Your task to perform on an android device: change the clock display to analog Image 0: 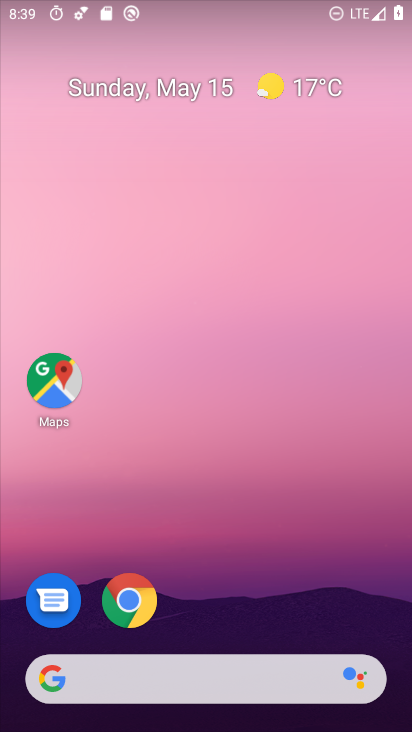
Step 0: drag from (258, 618) to (217, 198)
Your task to perform on an android device: change the clock display to analog Image 1: 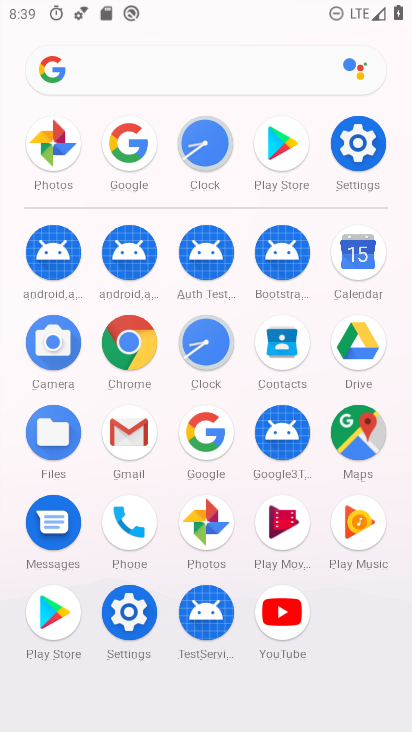
Step 1: click (210, 143)
Your task to perform on an android device: change the clock display to analog Image 2: 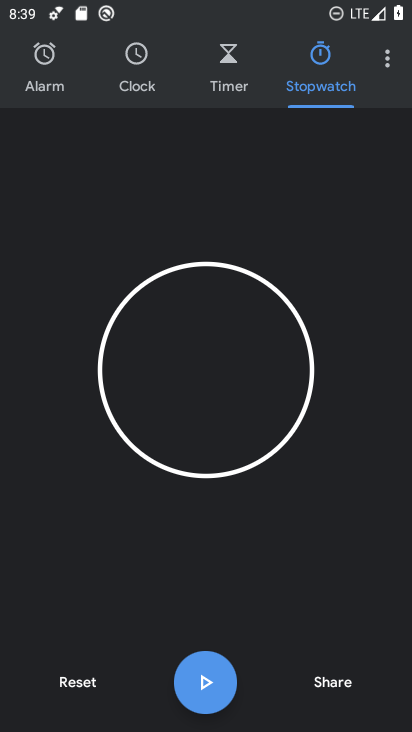
Step 2: click (389, 56)
Your task to perform on an android device: change the clock display to analog Image 3: 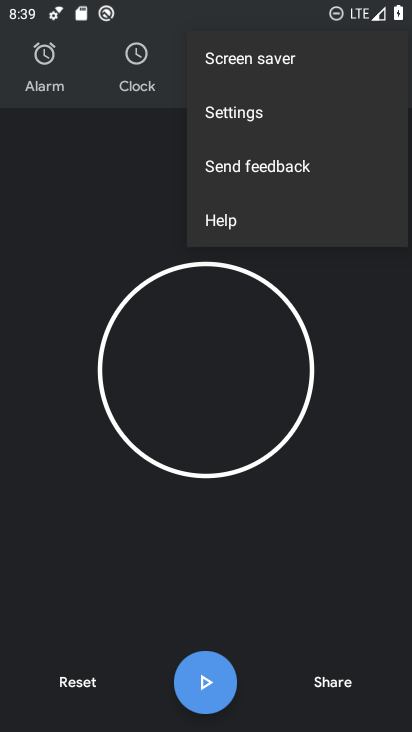
Step 3: click (247, 112)
Your task to perform on an android device: change the clock display to analog Image 4: 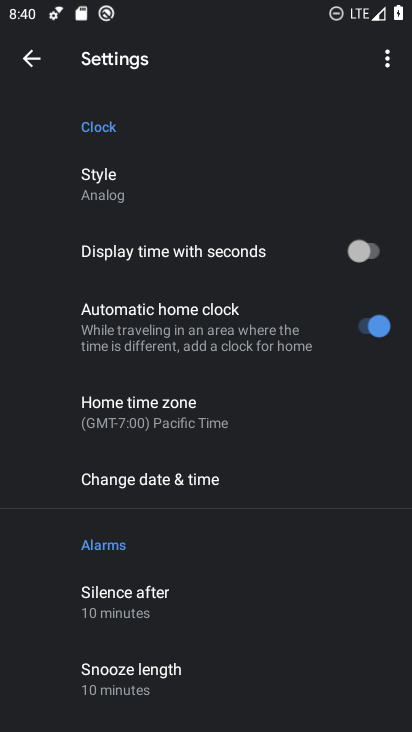
Step 4: task complete